Your task to perform on an android device: Go to privacy settings Image 0: 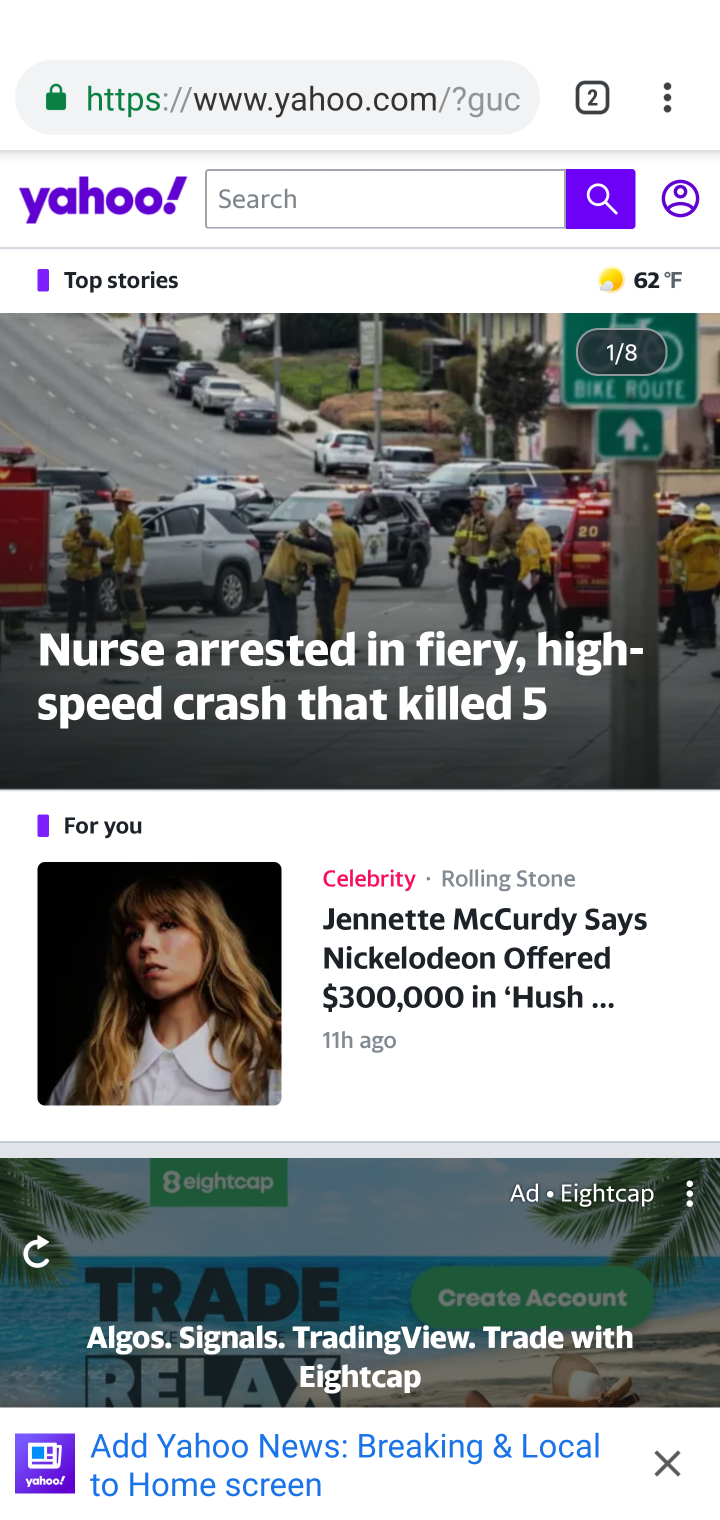
Step 0: press home button
Your task to perform on an android device: Go to privacy settings Image 1: 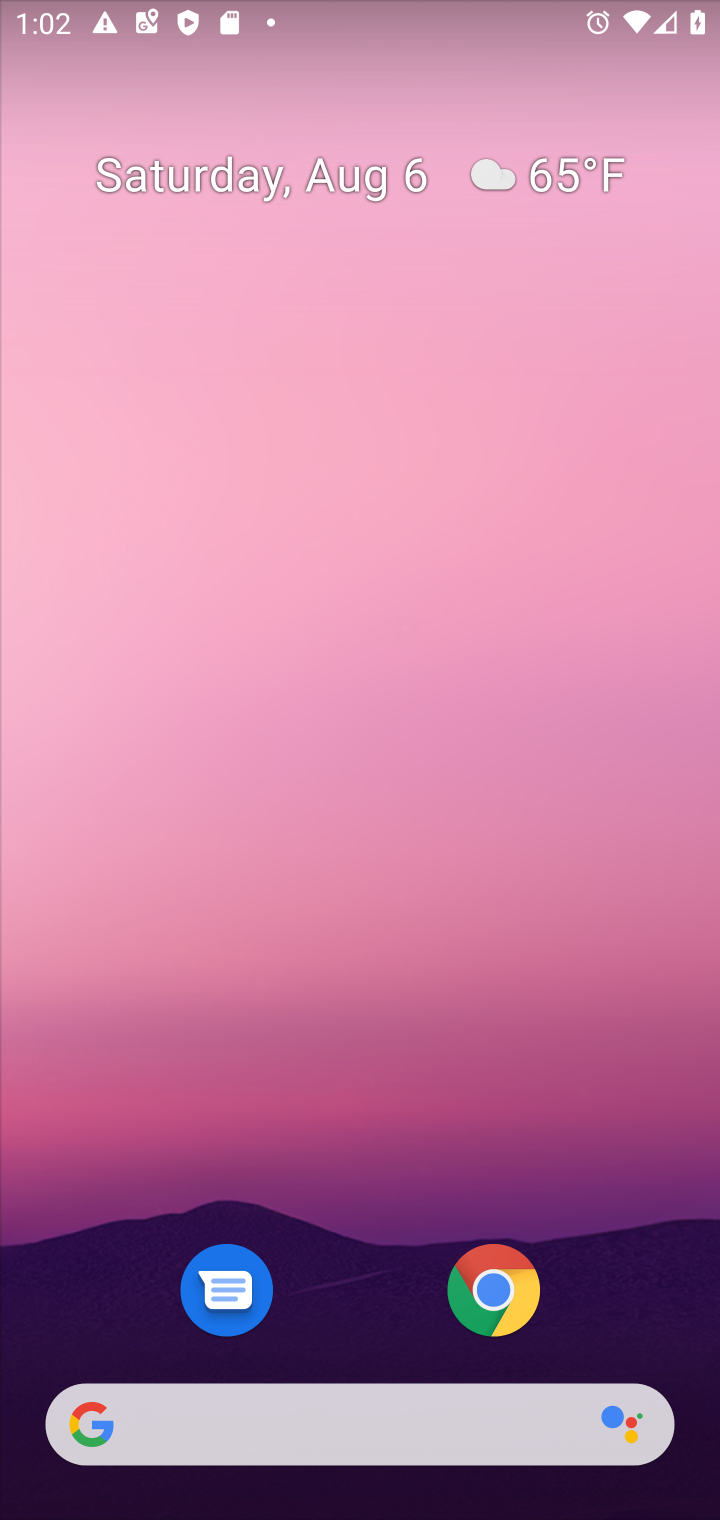
Step 1: drag from (358, 1338) to (324, 254)
Your task to perform on an android device: Go to privacy settings Image 2: 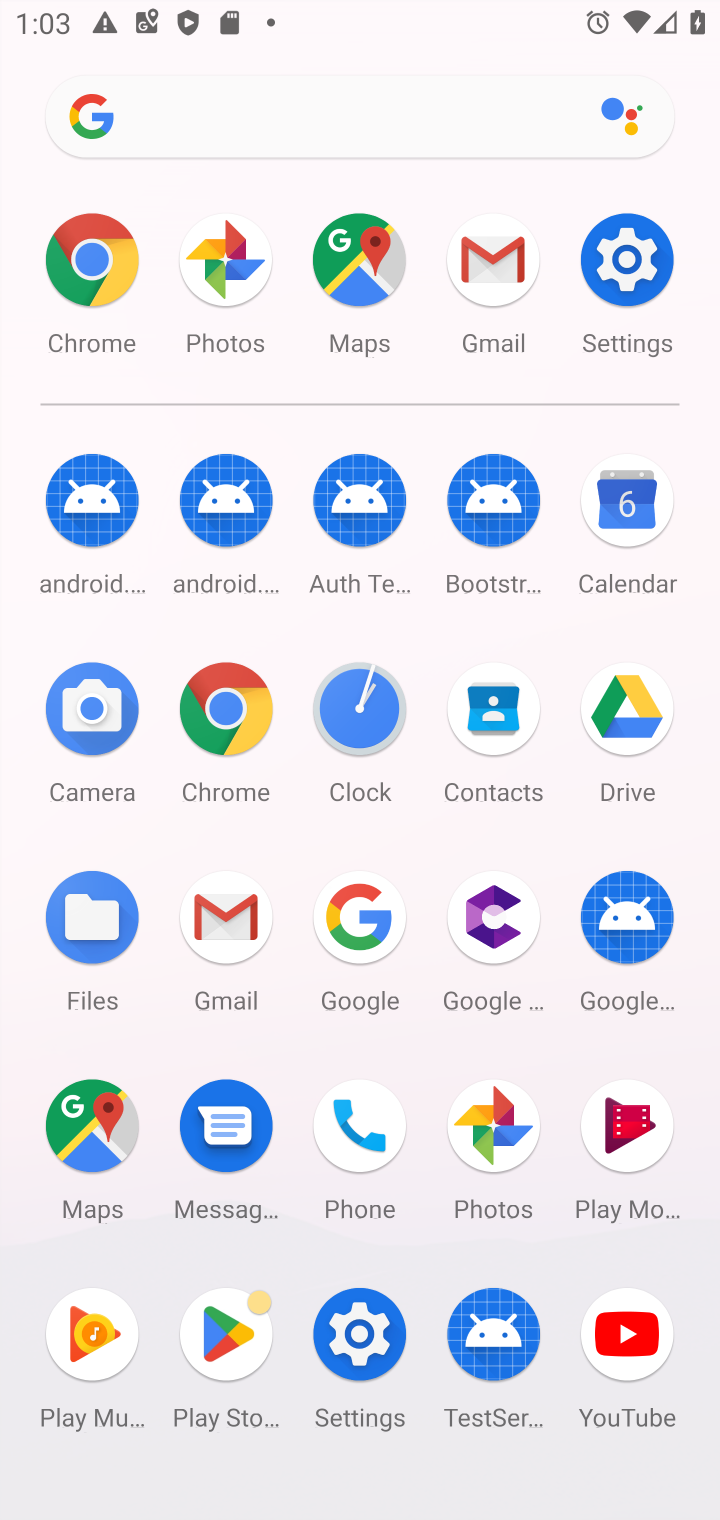
Step 2: click (383, 1323)
Your task to perform on an android device: Go to privacy settings Image 3: 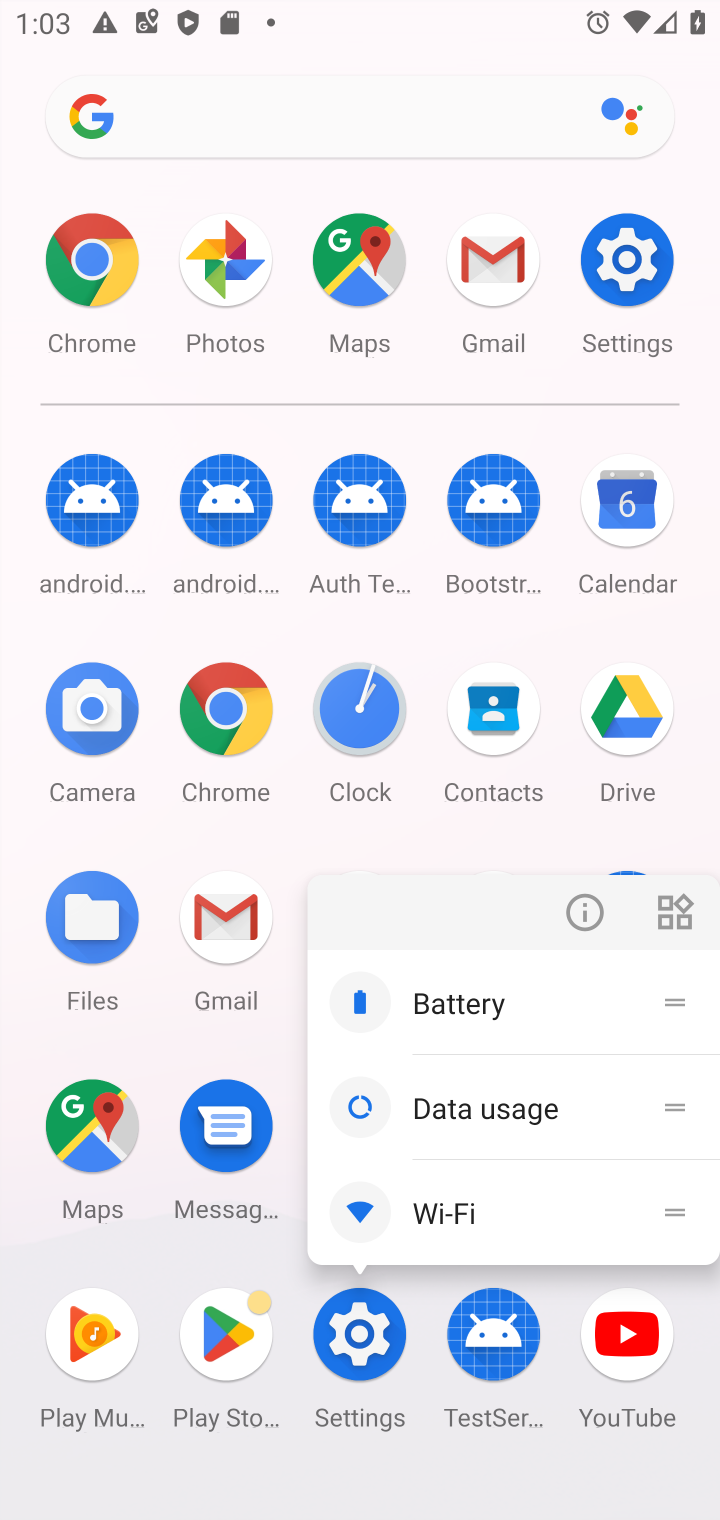
Step 3: click (367, 1314)
Your task to perform on an android device: Go to privacy settings Image 4: 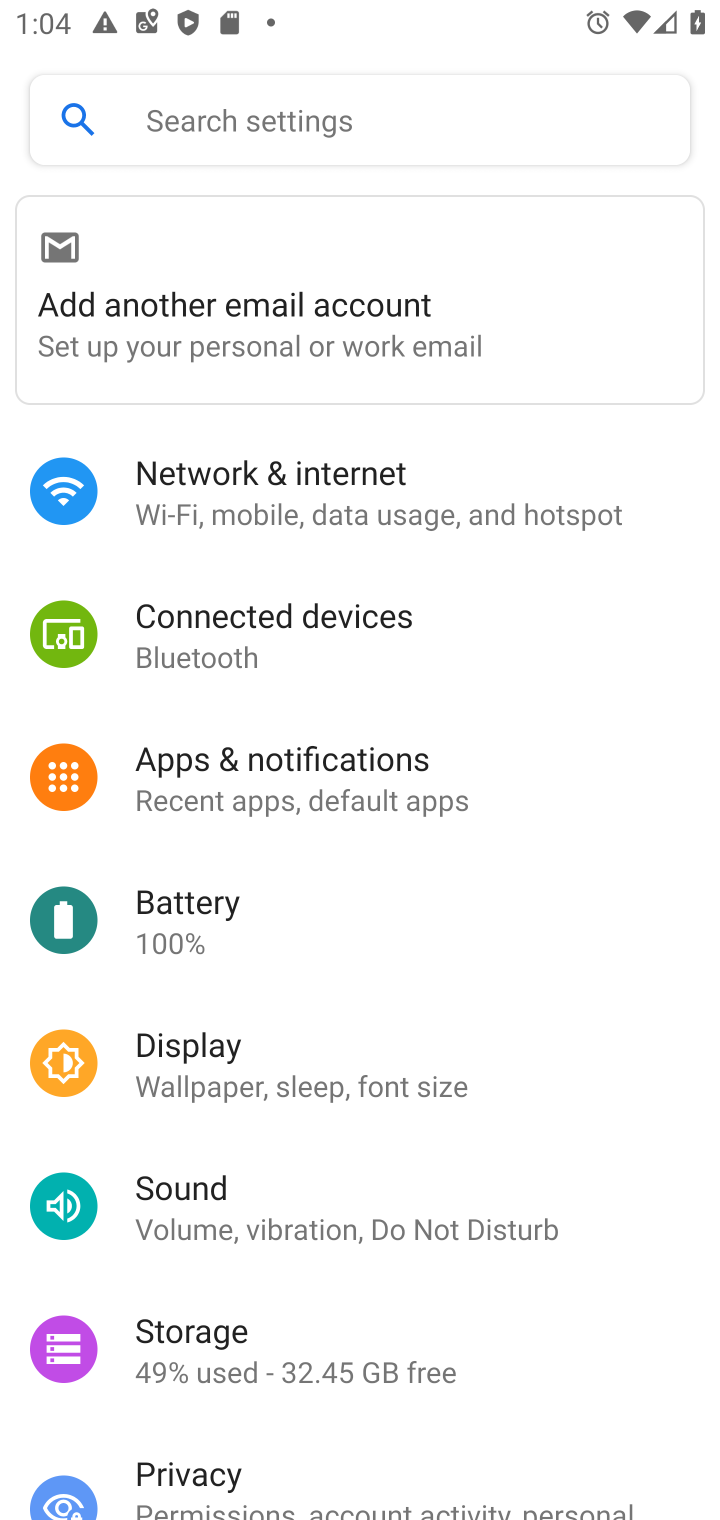
Step 4: click (305, 1459)
Your task to perform on an android device: Go to privacy settings Image 5: 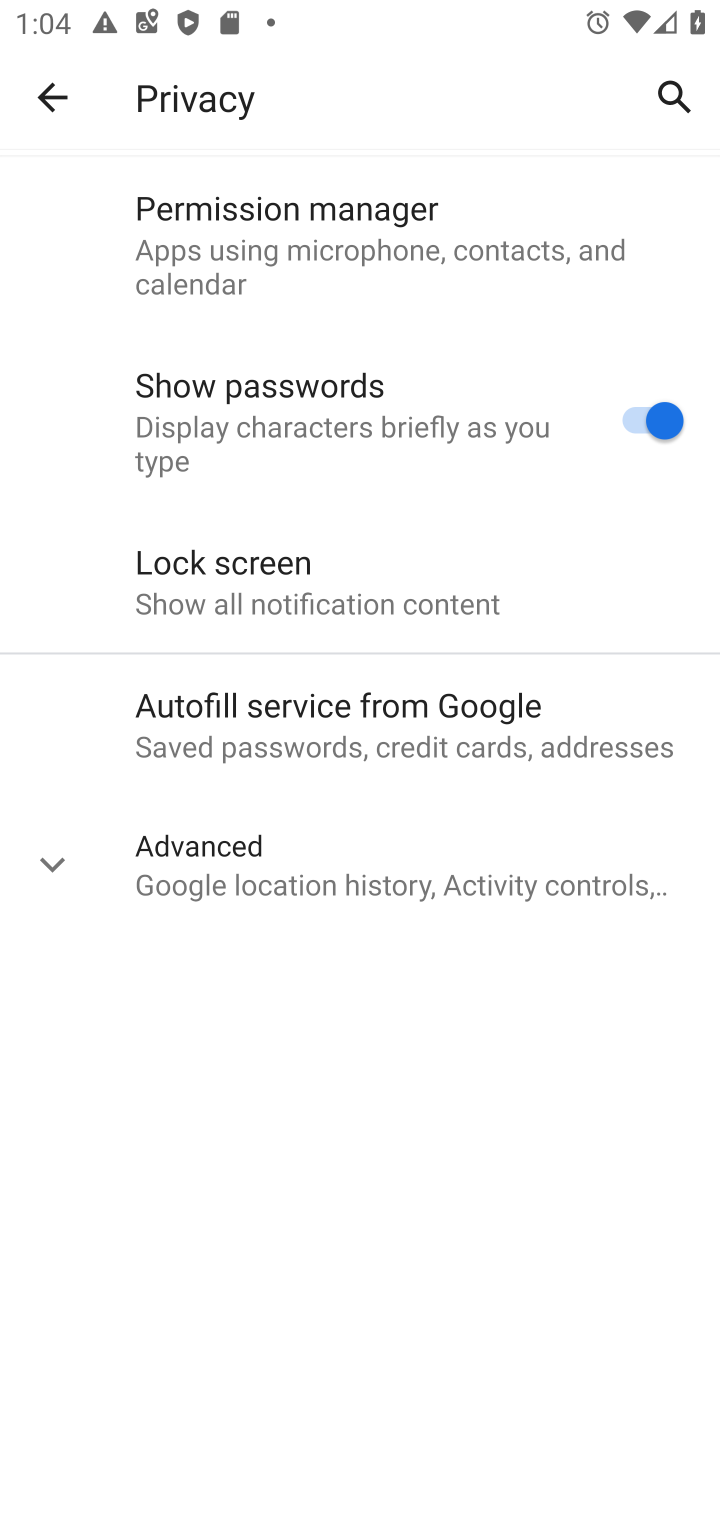
Step 5: click (59, 774)
Your task to perform on an android device: Go to privacy settings Image 6: 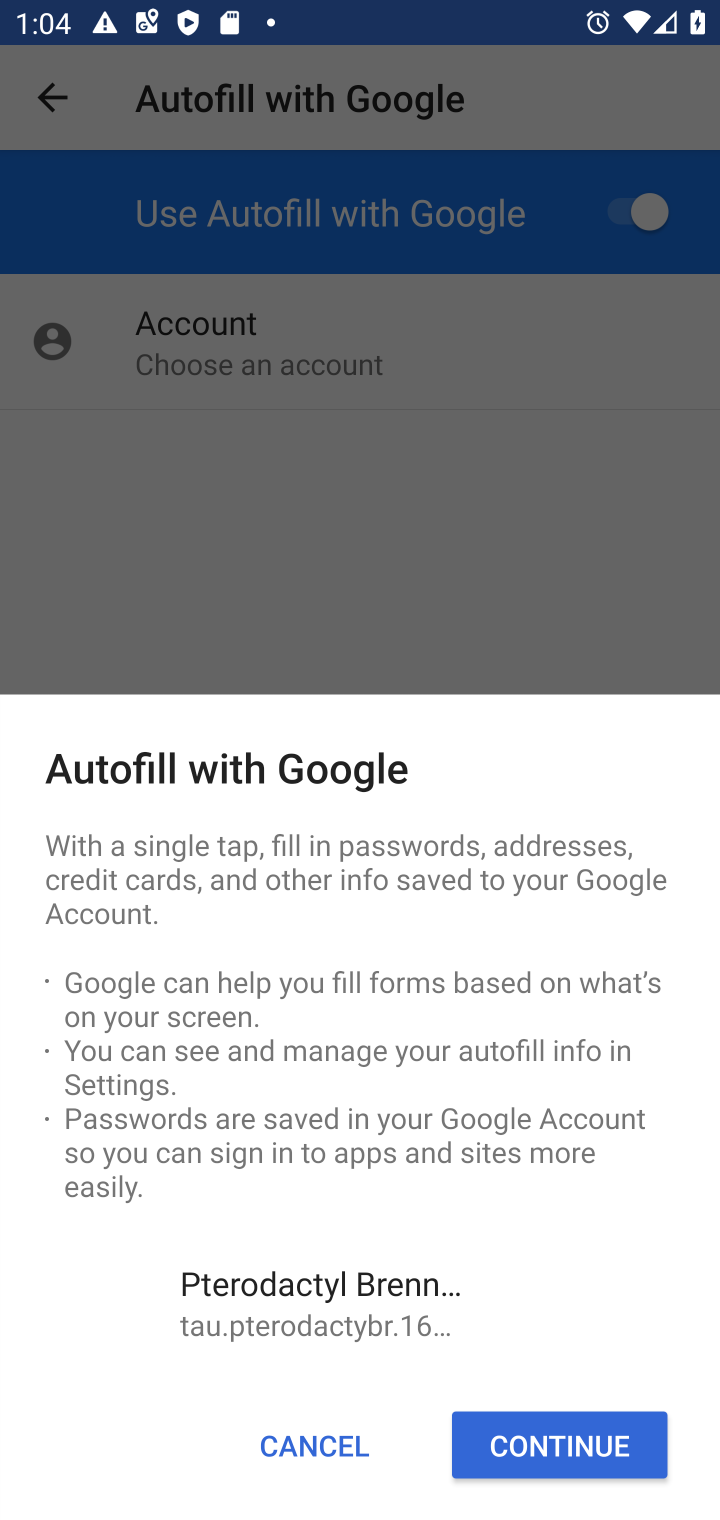
Step 6: click (296, 1439)
Your task to perform on an android device: Go to privacy settings Image 7: 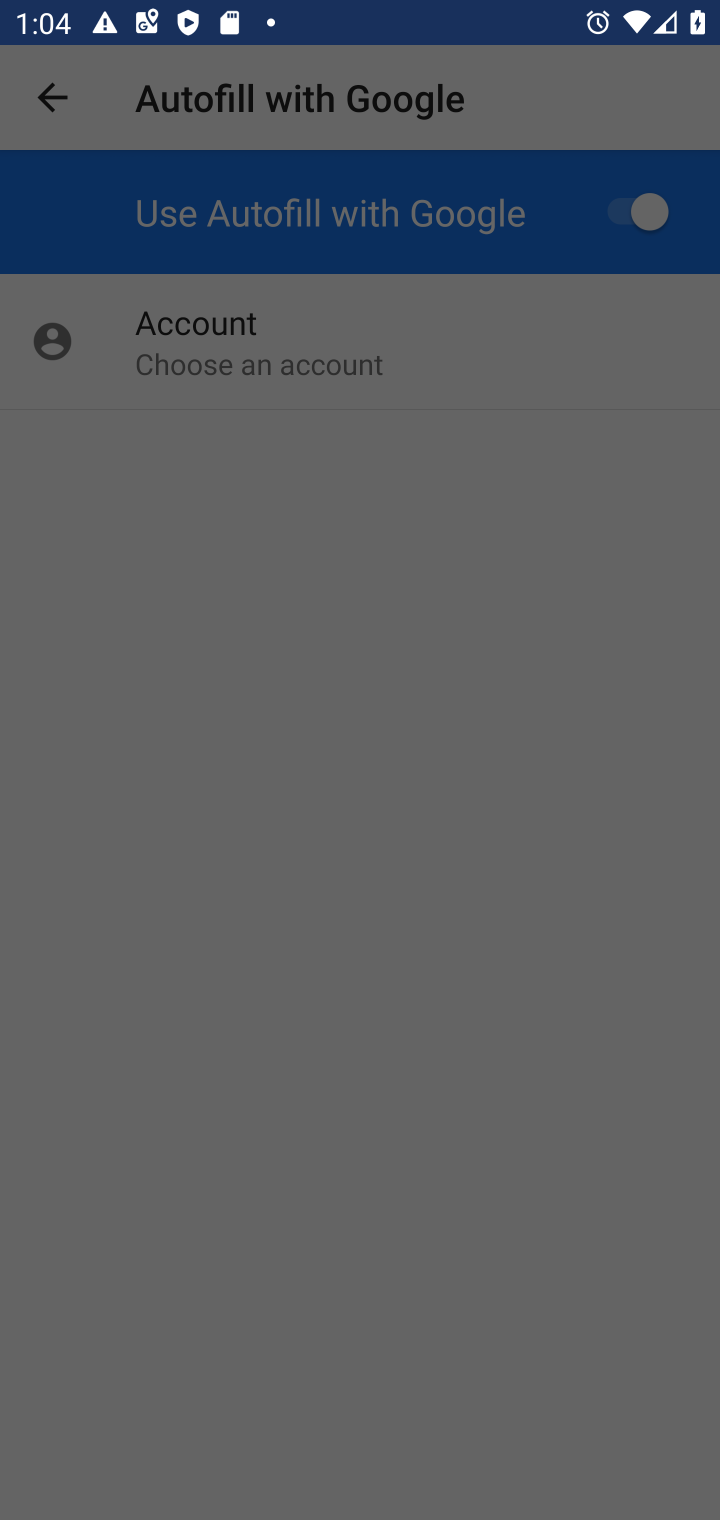
Step 7: click (49, 107)
Your task to perform on an android device: Go to privacy settings Image 8: 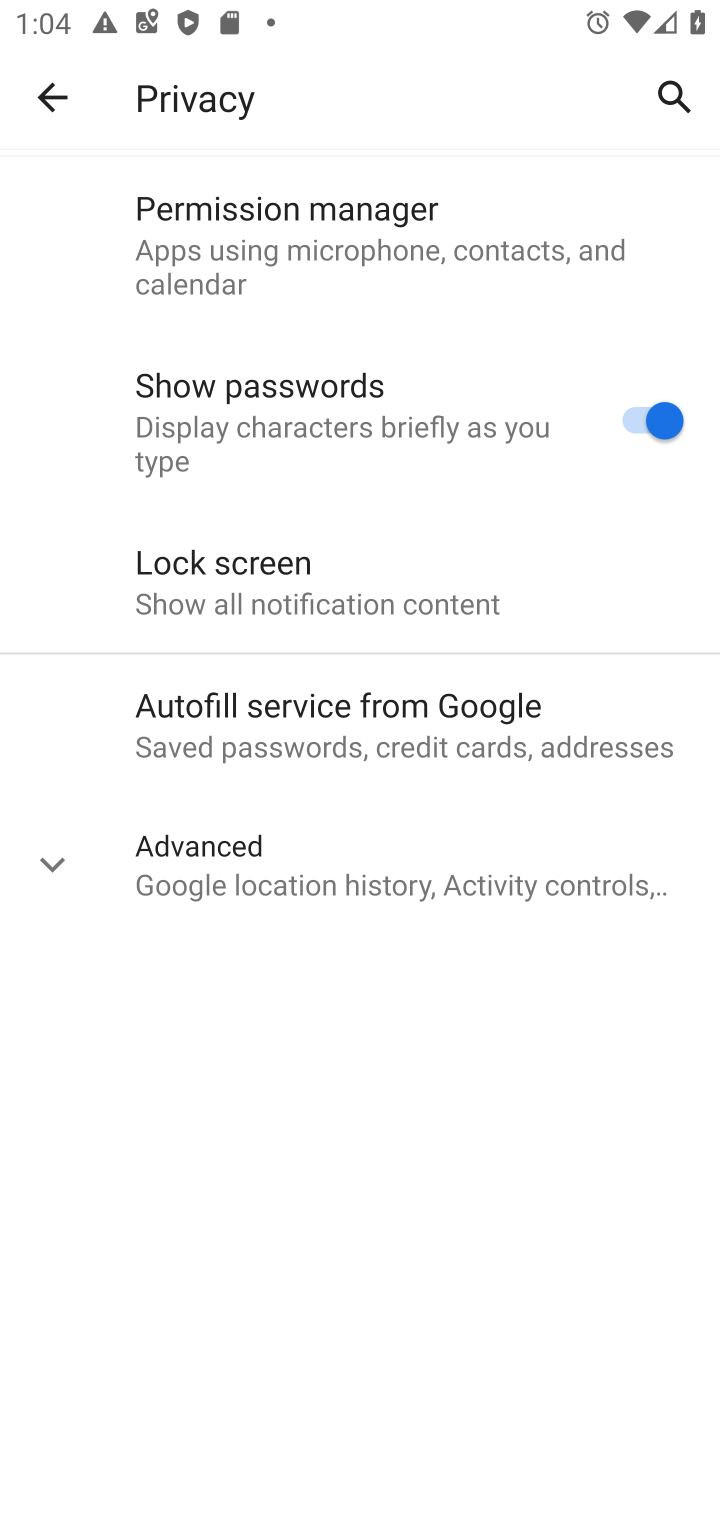
Step 8: click (61, 855)
Your task to perform on an android device: Go to privacy settings Image 9: 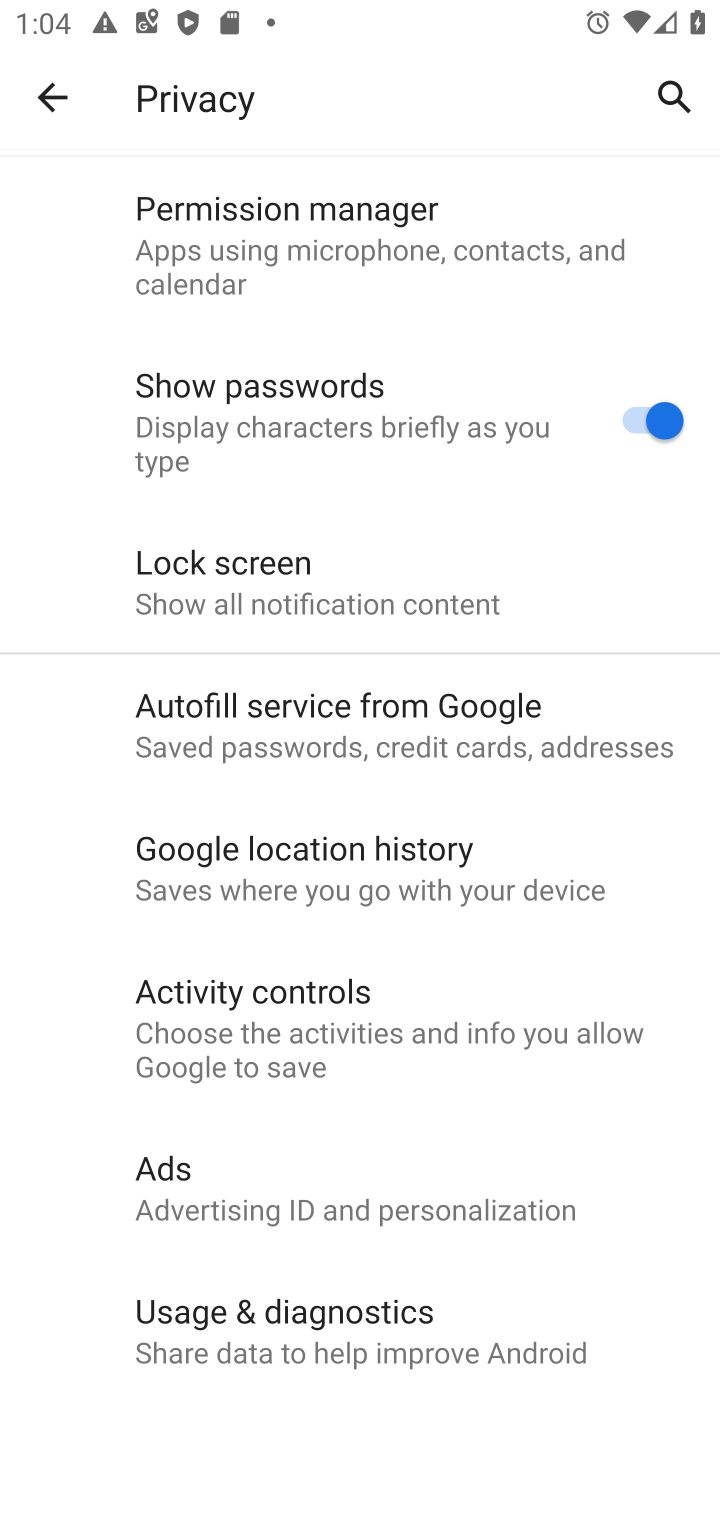
Step 9: task complete